Your task to perform on an android device: Open calendar and show me the third week of next month Image 0: 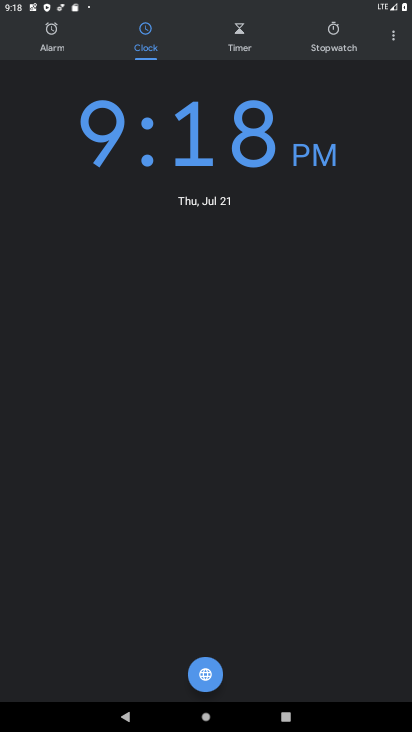
Step 0: press home button
Your task to perform on an android device: Open calendar and show me the third week of next month Image 1: 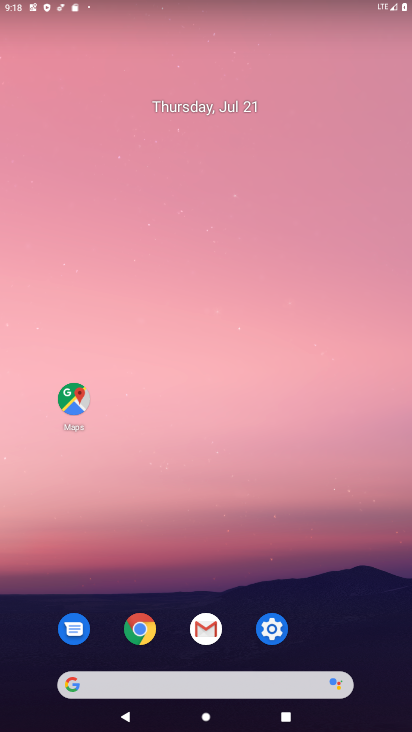
Step 1: drag from (287, 703) to (190, 125)
Your task to perform on an android device: Open calendar and show me the third week of next month Image 2: 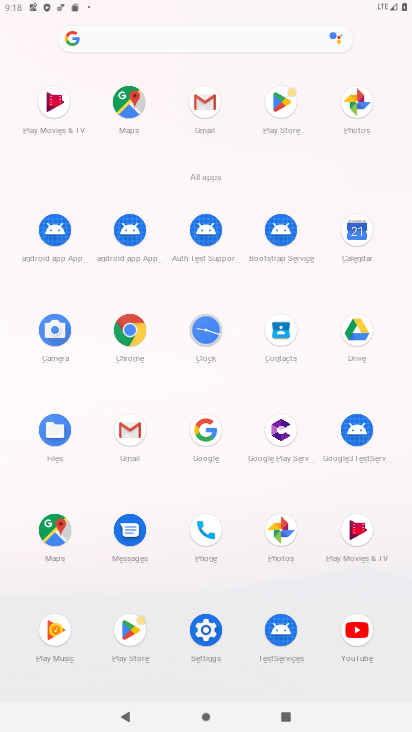
Step 2: click (364, 238)
Your task to perform on an android device: Open calendar and show me the third week of next month Image 3: 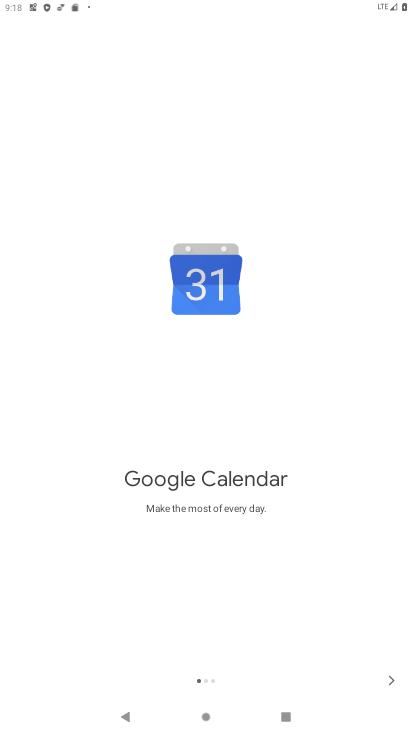
Step 3: click (379, 682)
Your task to perform on an android device: Open calendar and show me the third week of next month Image 4: 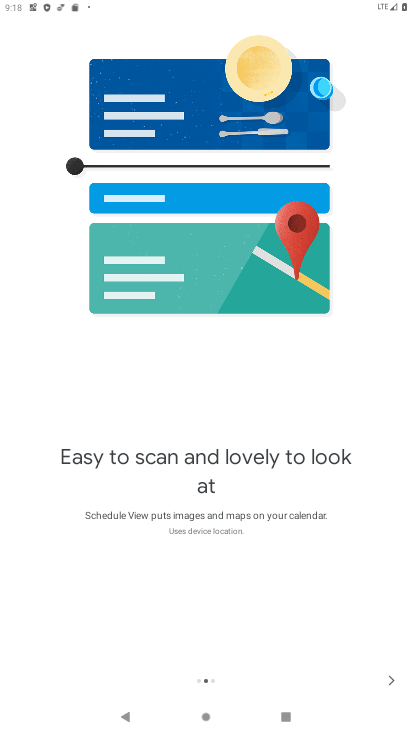
Step 4: click (384, 678)
Your task to perform on an android device: Open calendar and show me the third week of next month Image 5: 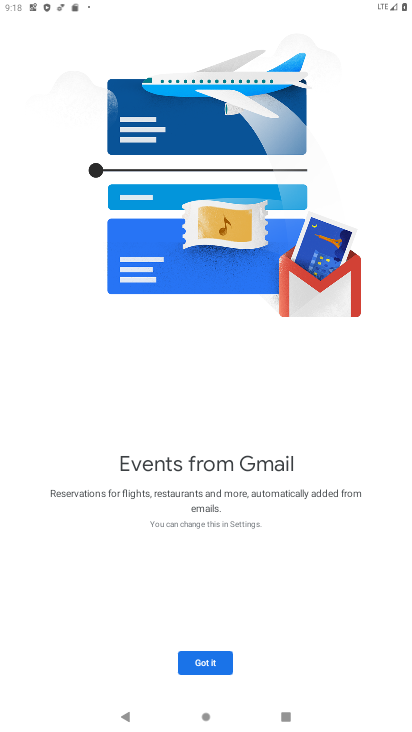
Step 5: click (198, 666)
Your task to perform on an android device: Open calendar and show me the third week of next month Image 6: 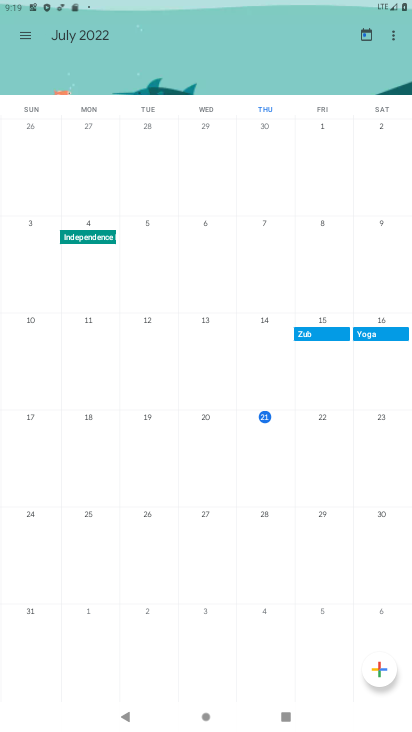
Step 6: drag from (397, 425) to (0, 512)
Your task to perform on an android device: Open calendar and show me the third week of next month Image 7: 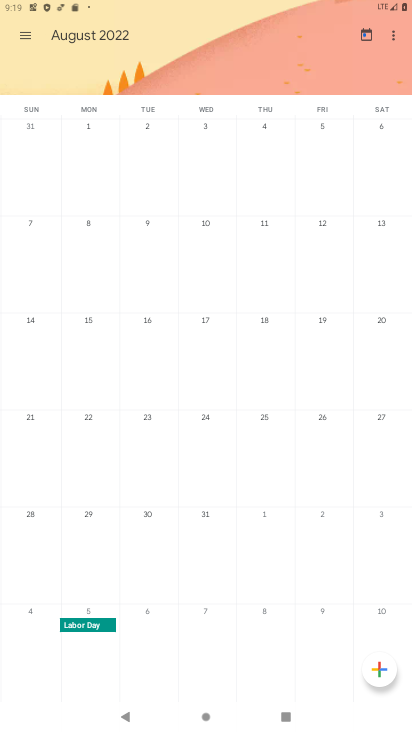
Step 7: click (79, 339)
Your task to perform on an android device: Open calendar and show me the third week of next month Image 8: 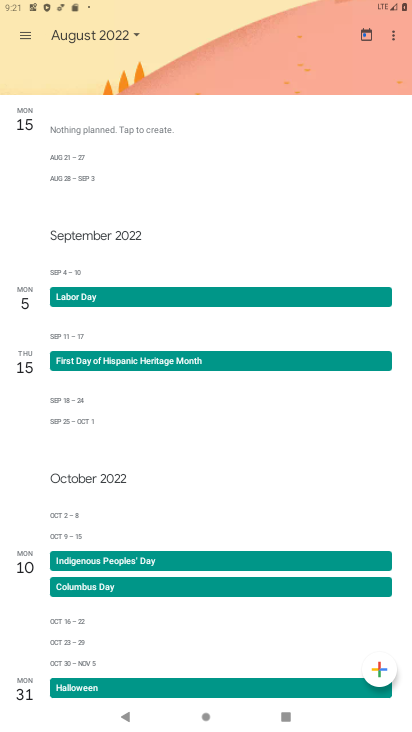
Step 8: task complete